Your task to perform on an android device: remove spam from my inbox in the gmail app Image 0: 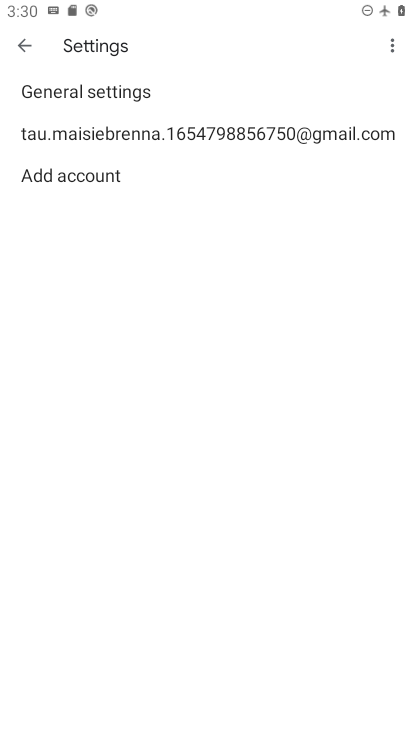
Step 0: press back button
Your task to perform on an android device: remove spam from my inbox in the gmail app Image 1: 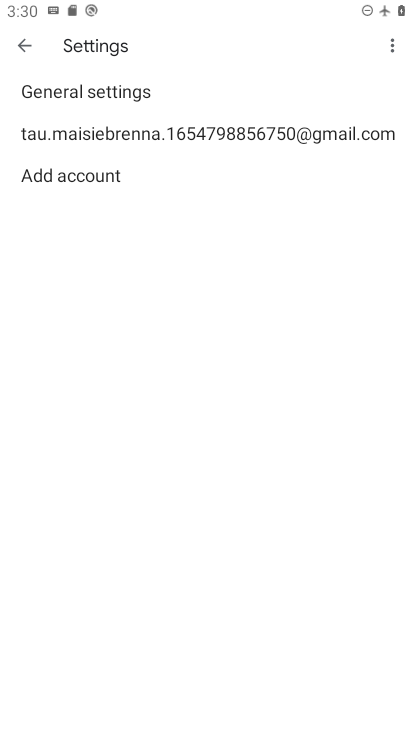
Step 1: press back button
Your task to perform on an android device: remove spam from my inbox in the gmail app Image 2: 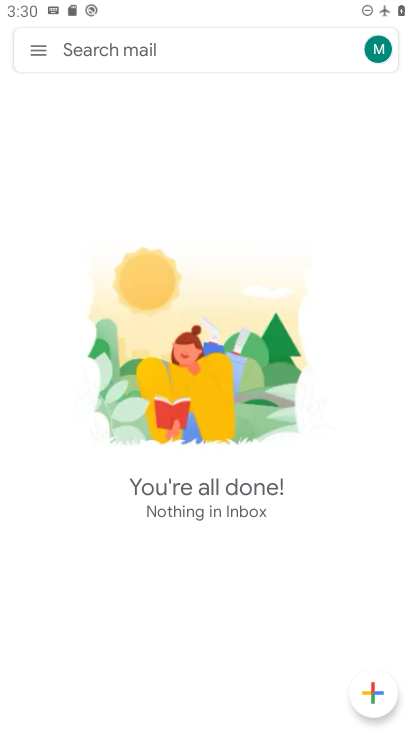
Step 2: click (40, 45)
Your task to perform on an android device: remove spam from my inbox in the gmail app Image 3: 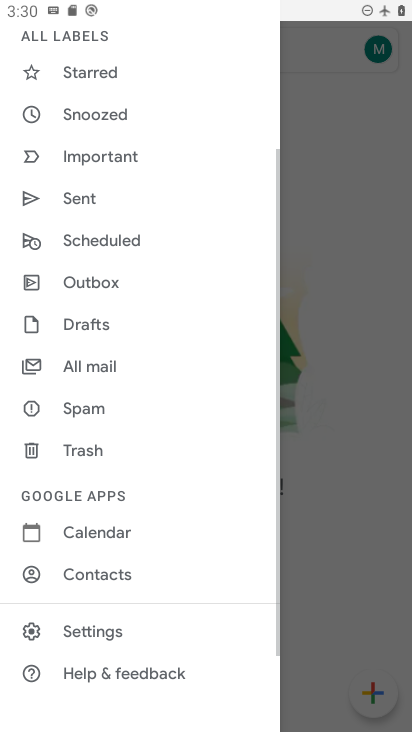
Step 3: click (112, 414)
Your task to perform on an android device: remove spam from my inbox in the gmail app Image 4: 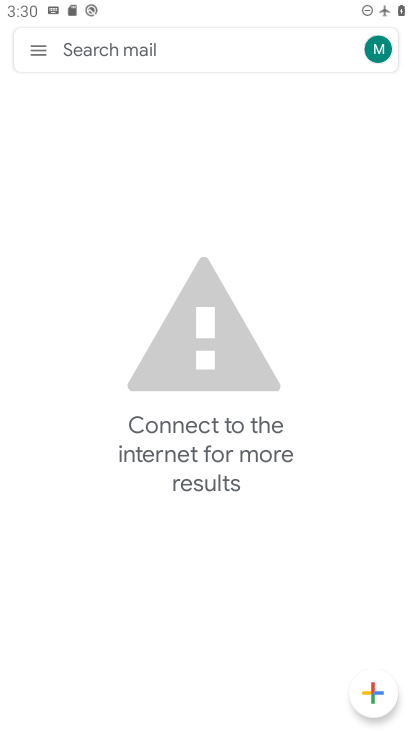
Step 4: drag from (371, 9) to (247, 662)
Your task to perform on an android device: remove spam from my inbox in the gmail app Image 5: 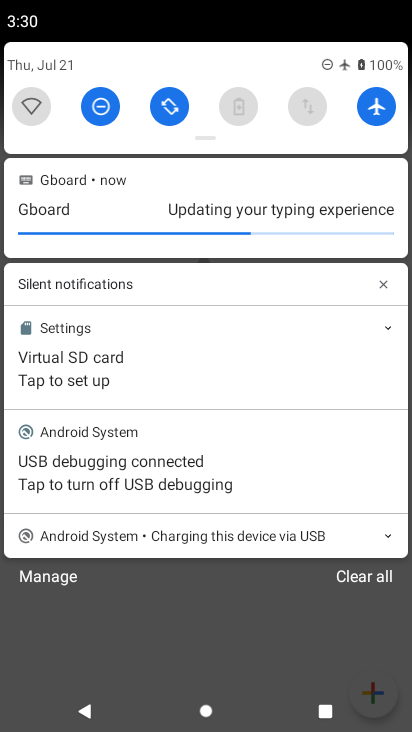
Step 5: click (380, 104)
Your task to perform on an android device: remove spam from my inbox in the gmail app Image 6: 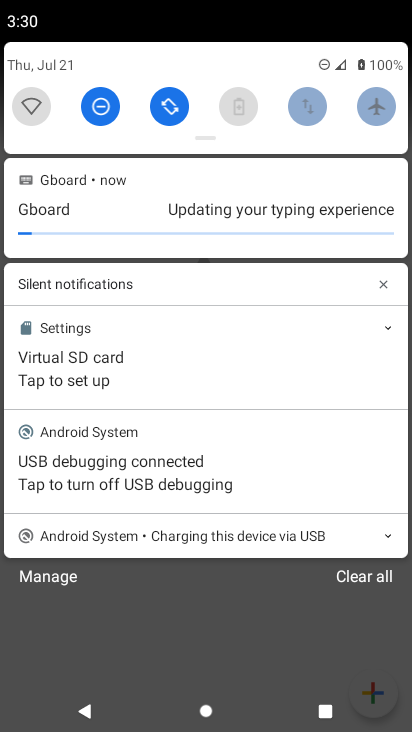
Step 6: click (143, 635)
Your task to perform on an android device: remove spam from my inbox in the gmail app Image 7: 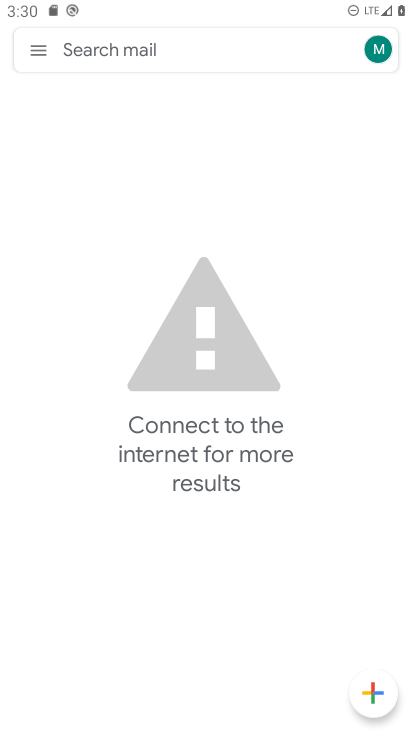
Step 7: task complete